Your task to perform on an android device: Open calendar and show me the fourth week of next month Image 0: 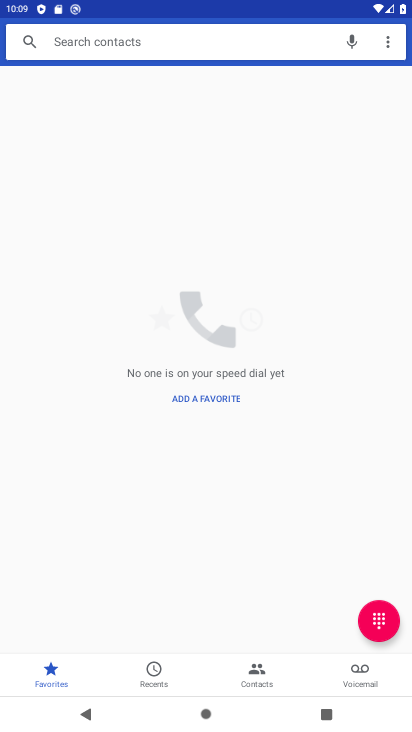
Step 0: press home button
Your task to perform on an android device: Open calendar and show me the fourth week of next month Image 1: 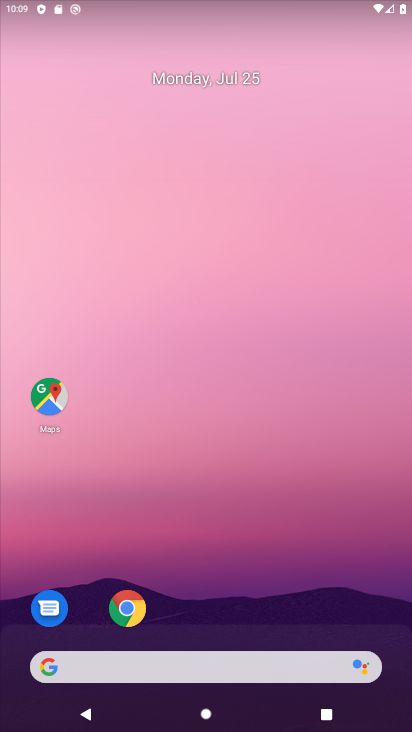
Step 1: drag from (198, 648) to (208, 60)
Your task to perform on an android device: Open calendar and show me the fourth week of next month Image 2: 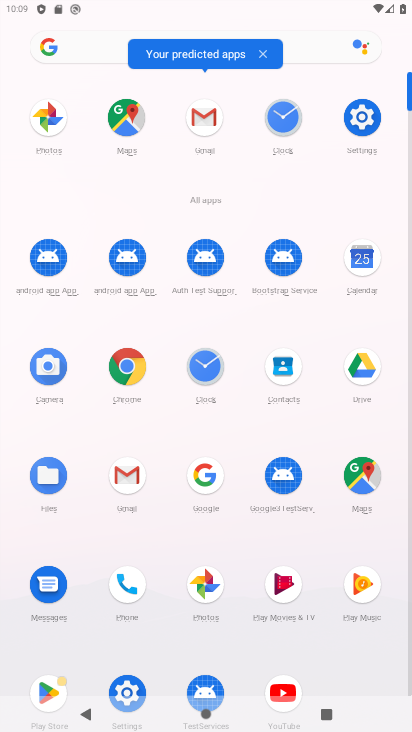
Step 2: click (367, 259)
Your task to perform on an android device: Open calendar and show me the fourth week of next month Image 3: 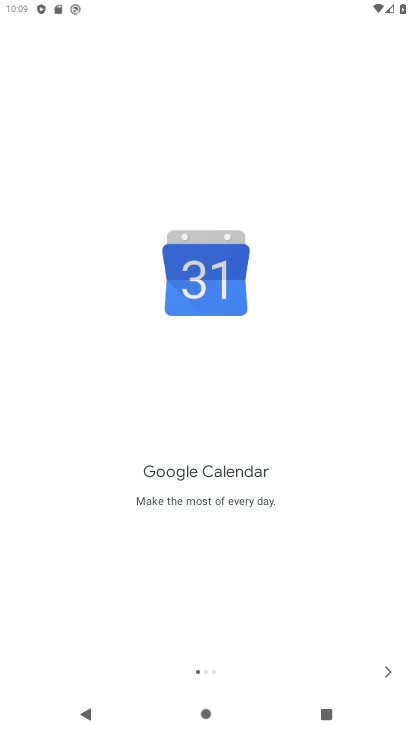
Step 3: click (388, 671)
Your task to perform on an android device: Open calendar and show me the fourth week of next month Image 4: 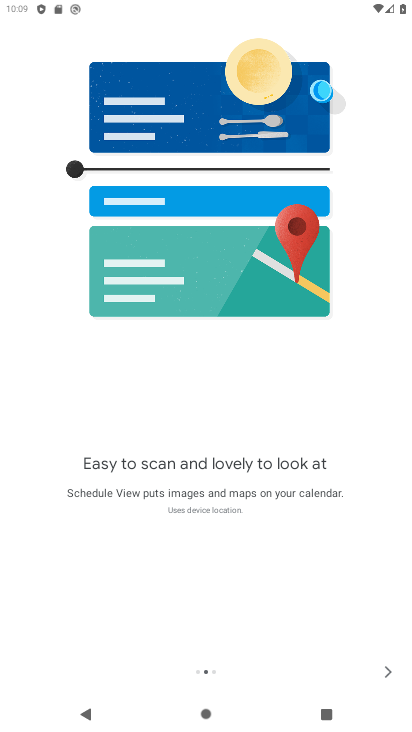
Step 4: click (388, 671)
Your task to perform on an android device: Open calendar and show me the fourth week of next month Image 5: 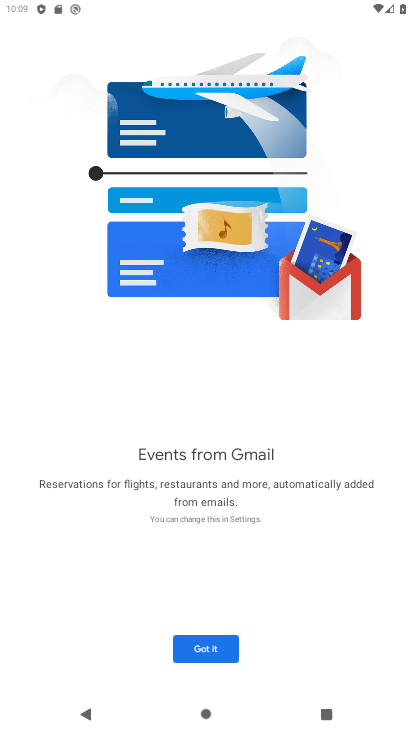
Step 5: click (209, 651)
Your task to perform on an android device: Open calendar and show me the fourth week of next month Image 6: 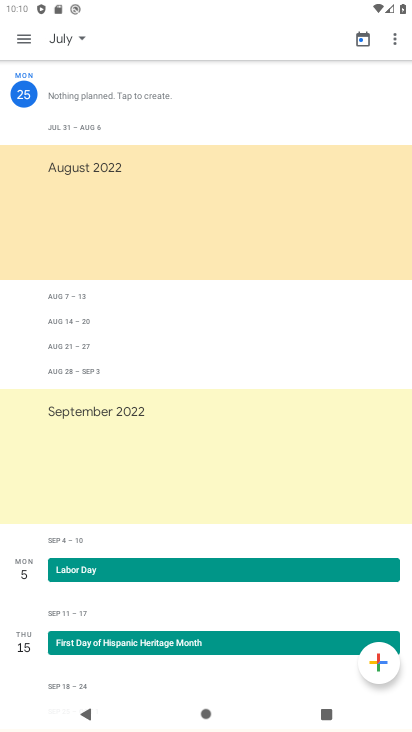
Step 6: click (79, 37)
Your task to perform on an android device: Open calendar and show me the fourth week of next month Image 7: 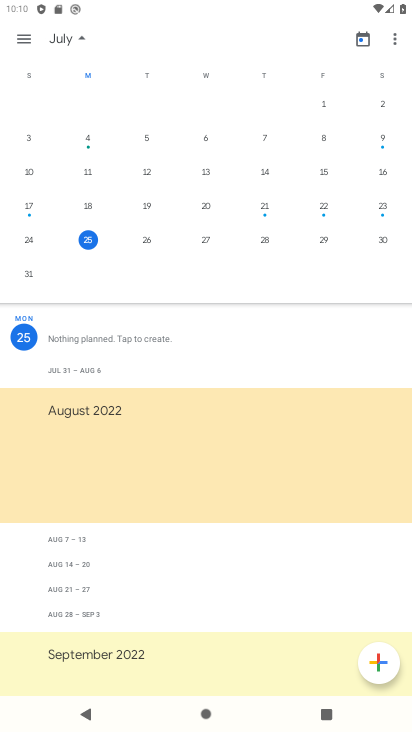
Step 7: drag from (355, 221) to (13, 193)
Your task to perform on an android device: Open calendar and show me the fourth week of next month Image 8: 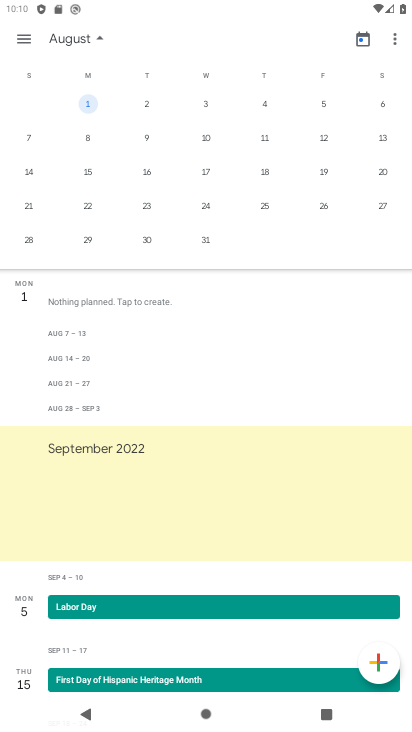
Step 8: click (90, 208)
Your task to perform on an android device: Open calendar and show me the fourth week of next month Image 9: 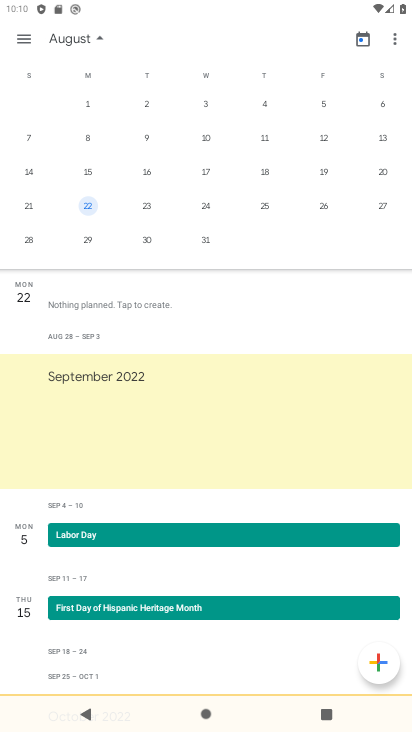
Step 9: click (20, 37)
Your task to perform on an android device: Open calendar and show me the fourth week of next month Image 10: 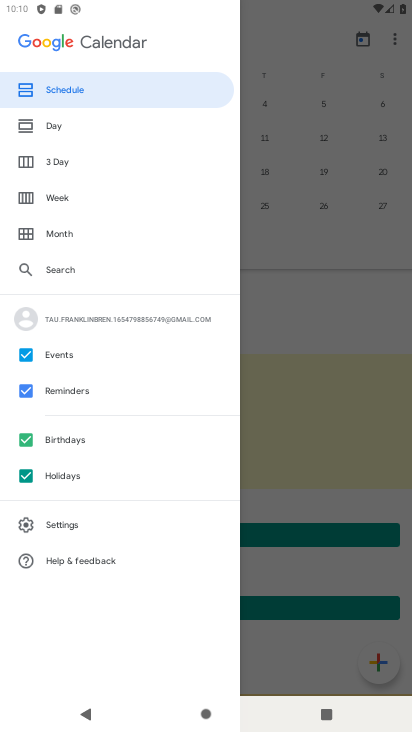
Step 10: click (55, 194)
Your task to perform on an android device: Open calendar and show me the fourth week of next month Image 11: 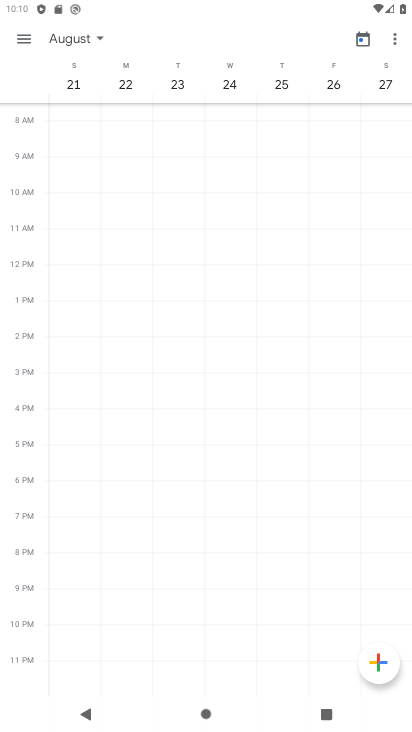
Step 11: task complete